Your task to perform on an android device: Open maps Image 0: 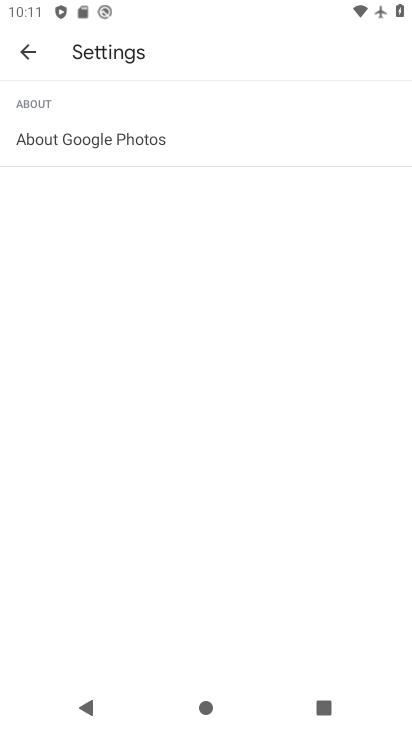
Step 0: press home button
Your task to perform on an android device: Open maps Image 1: 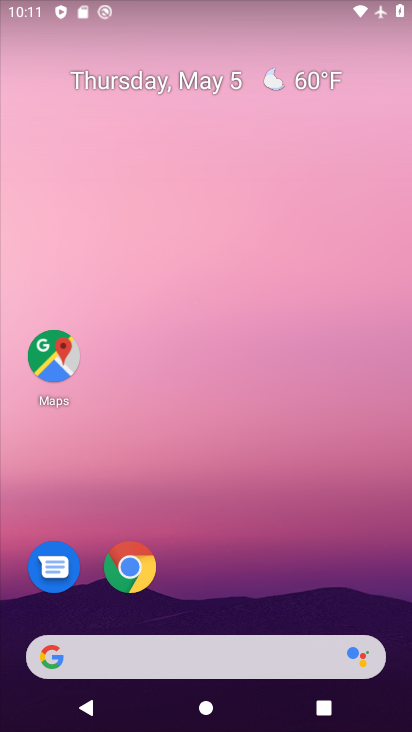
Step 1: click (64, 373)
Your task to perform on an android device: Open maps Image 2: 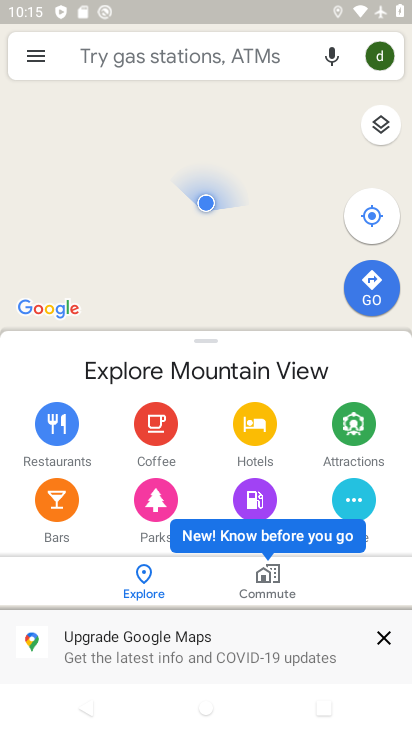
Step 2: task complete